Your task to perform on an android device: add a contact in the contacts app Image 0: 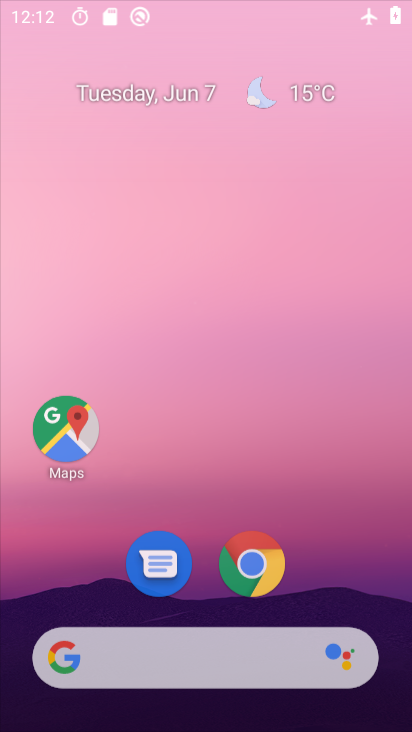
Step 0: click (217, 190)
Your task to perform on an android device: add a contact in the contacts app Image 1: 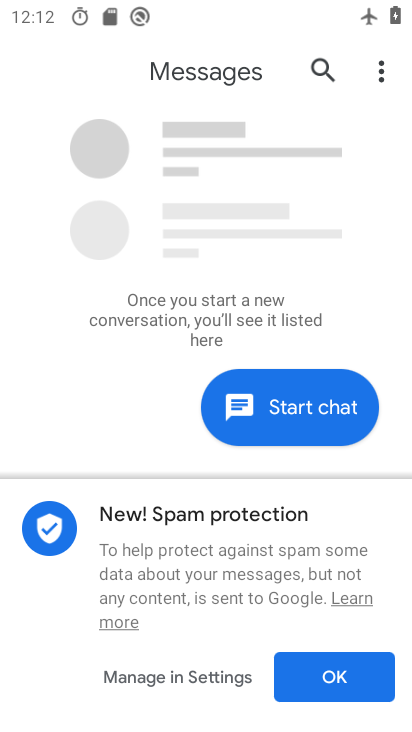
Step 1: press home button
Your task to perform on an android device: add a contact in the contacts app Image 2: 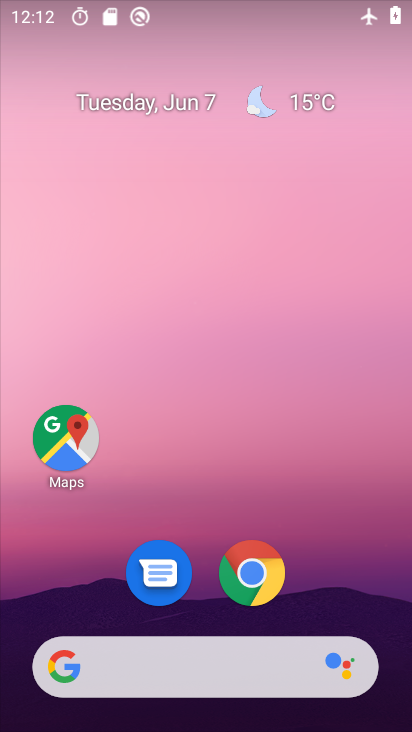
Step 2: click (197, 161)
Your task to perform on an android device: add a contact in the contacts app Image 3: 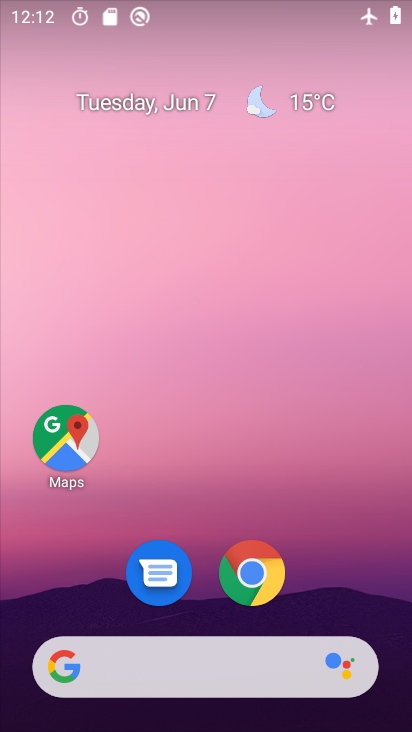
Step 3: drag from (206, 563) to (197, 123)
Your task to perform on an android device: add a contact in the contacts app Image 4: 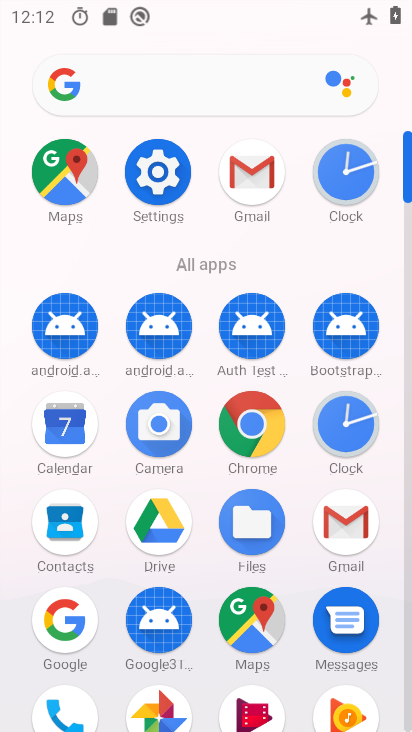
Step 4: click (84, 537)
Your task to perform on an android device: add a contact in the contacts app Image 5: 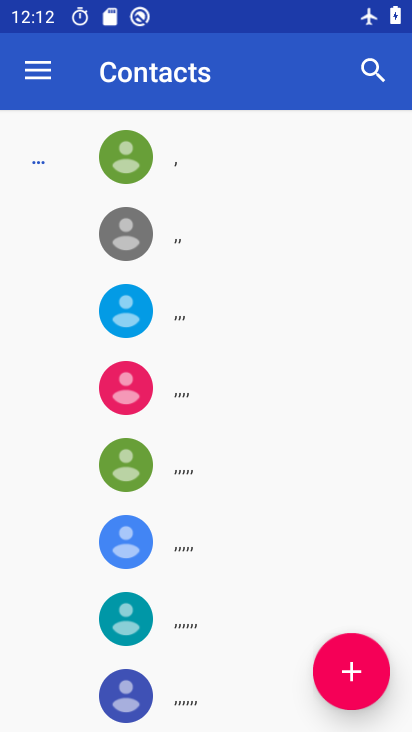
Step 5: click (356, 692)
Your task to perform on an android device: add a contact in the contacts app Image 6: 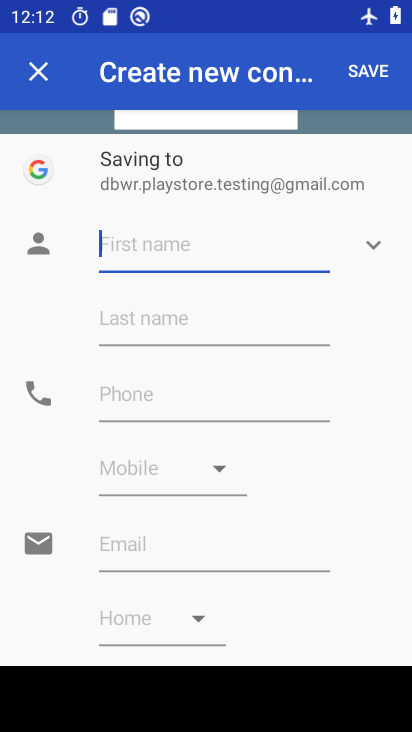
Step 6: type "jyjyg"
Your task to perform on an android device: add a contact in the contacts app Image 7: 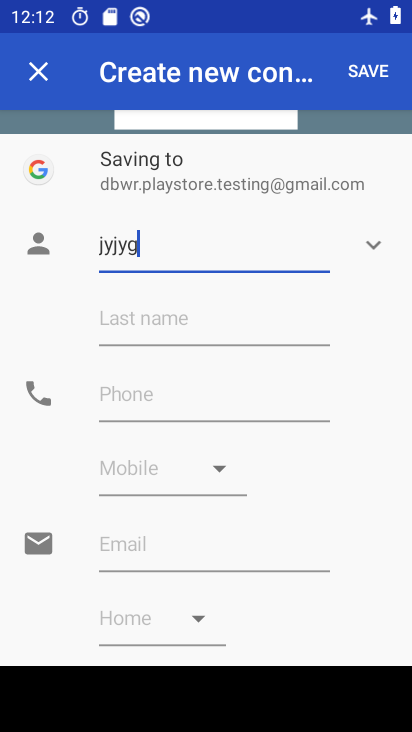
Step 7: click (148, 378)
Your task to perform on an android device: add a contact in the contacts app Image 8: 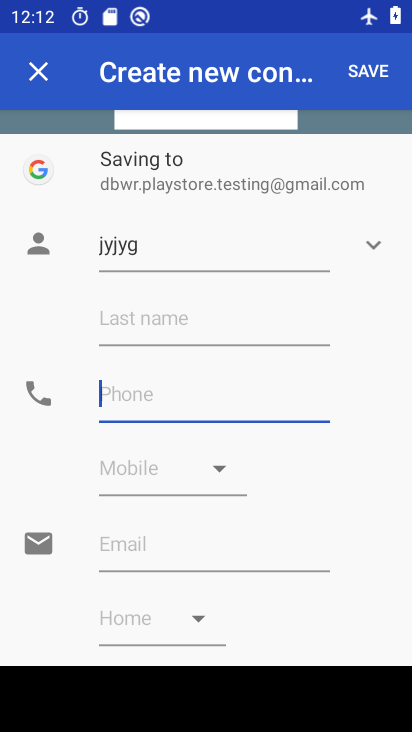
Step 8: type "9768786556"
Your task to perform on an android device: add a contact in the contacts app Image 9: 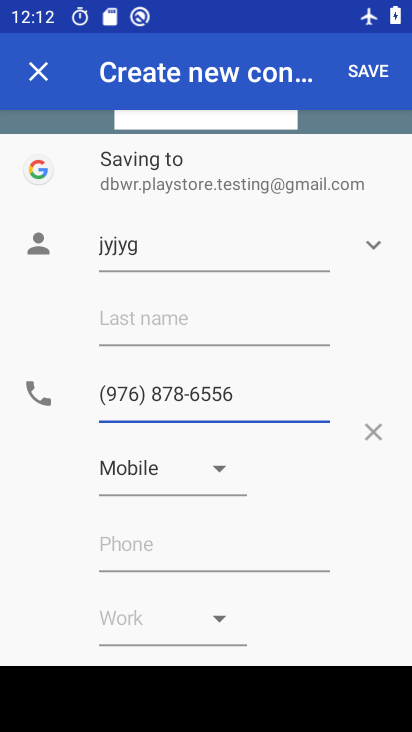
Step 9: click (352, 66)
Your task to perform on an android device: add a contact in the contacts app Image 10: 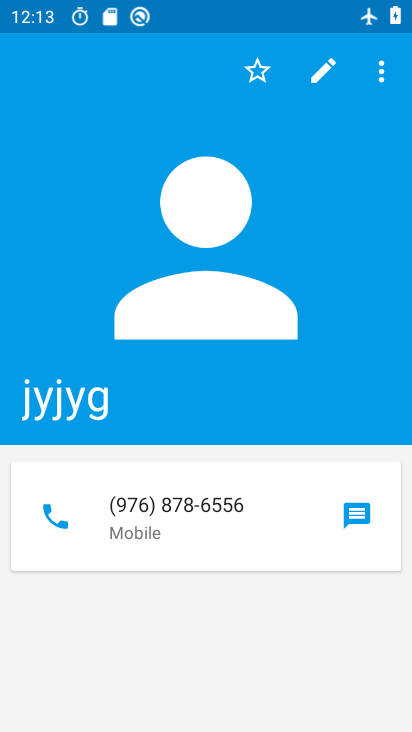
Step 10: task complete